Your task to perform on an android device: delete location history Image 0: 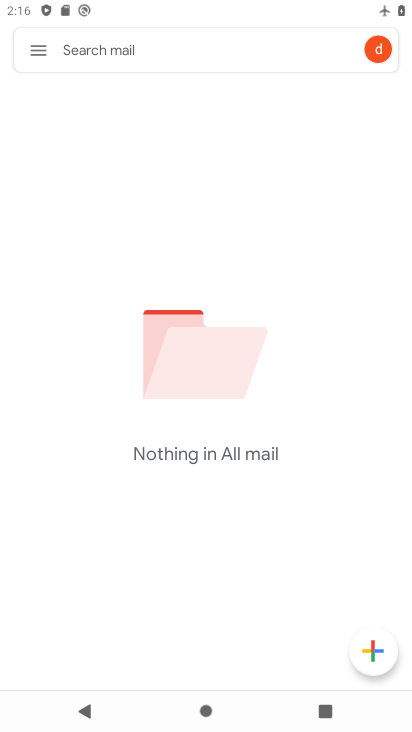
Step 0: press home button
Your task to perform on an android device: delete location history Image 1: 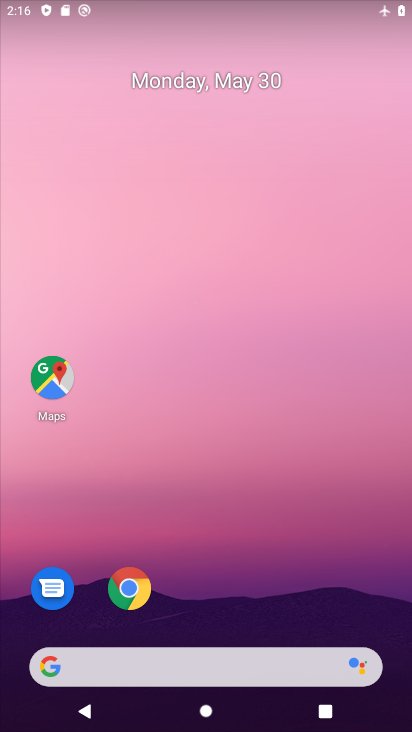
Step 1: click (58, 375)
Your task to perform on an android device: delete location history Image 2: 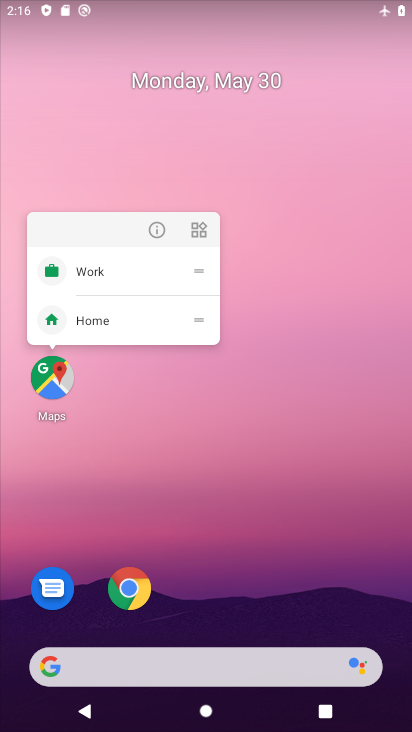
Step 2: click (58, 375)
Your task to perform on an android device: delete location history Image 3: 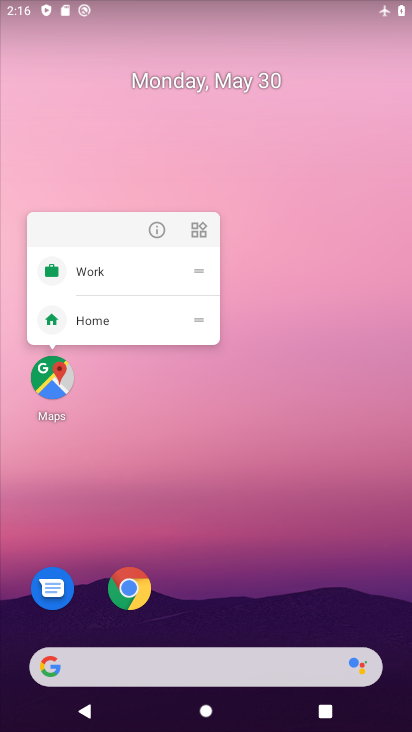
Step 3: click (58, 375)
Your task to perform on an android device: delete location history Image 4: 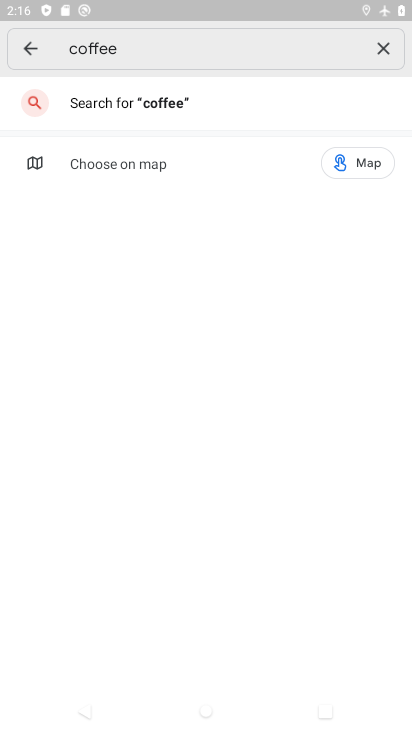
Step 4: click (26, 47)
Your task to perform on an android device: delete location history Image 5: 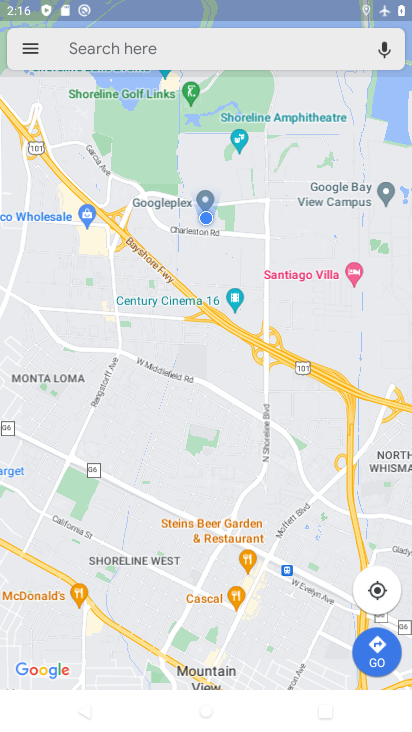
Step 5: click (30, 49)
Your task to perform on an android device: delete location history Image 6: 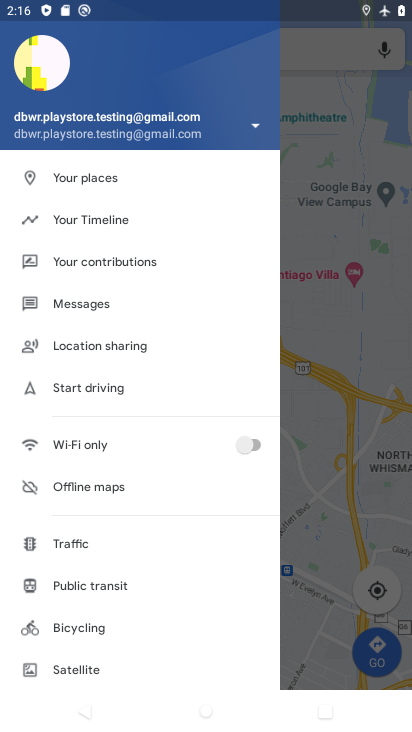
Step 6: click (109, 222)
Your task to perform on an android device: delete location history Image 7: 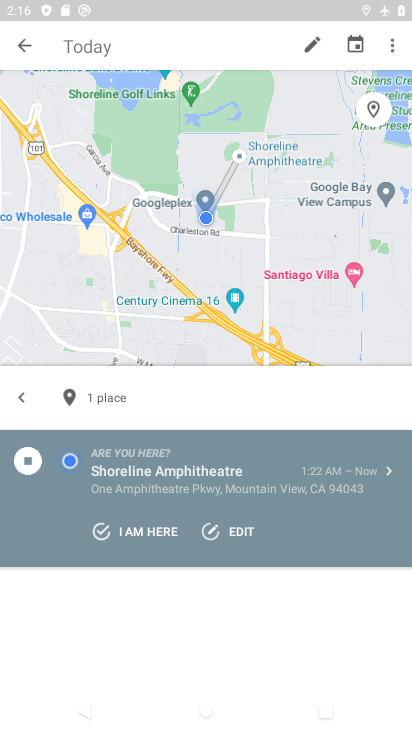
Step 7: click (383, 47)
Your task to perform on an android device: delete location history Image 8: 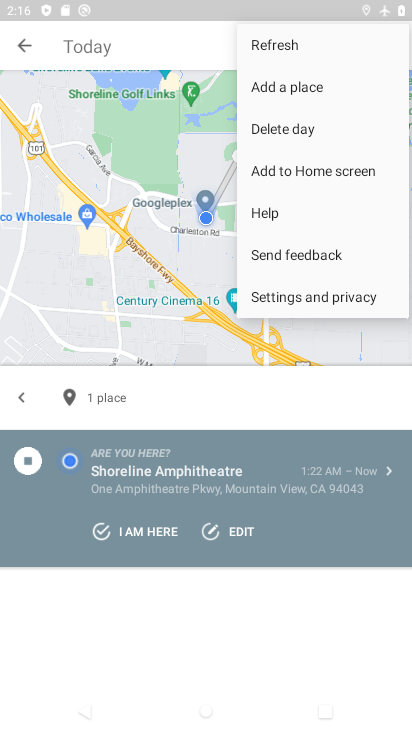
Step 8: click (295, 296)
Your task to perform on an android device: delete location history Image 9: 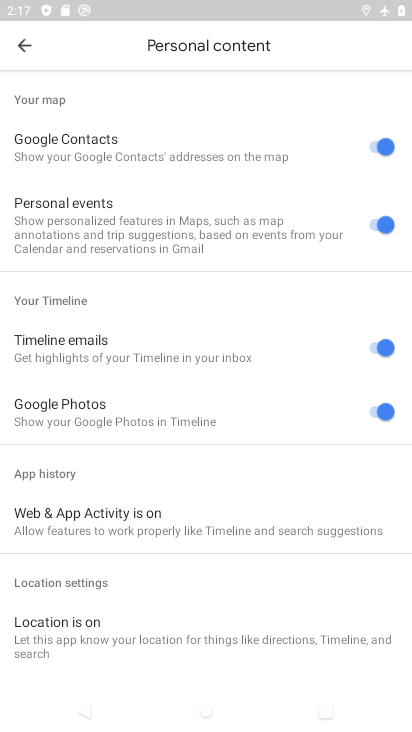
Step 9: drag from (150, 528) to (208, 150)
Your task to perform on an android device: delete location history Image 10: 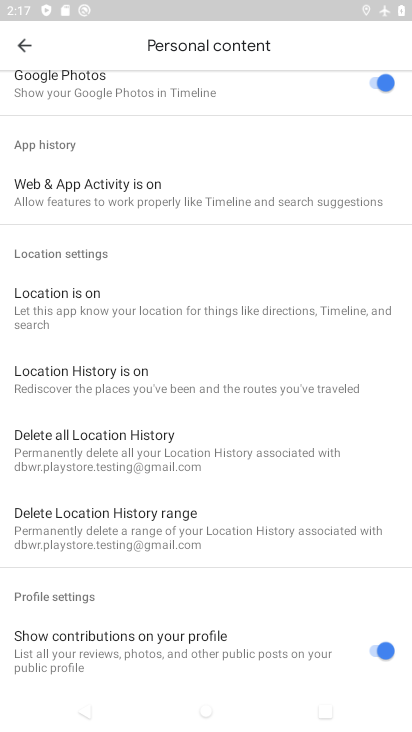
Step 10: click (126, 450)
Your task to perform on an android device: delete location history Image 11: 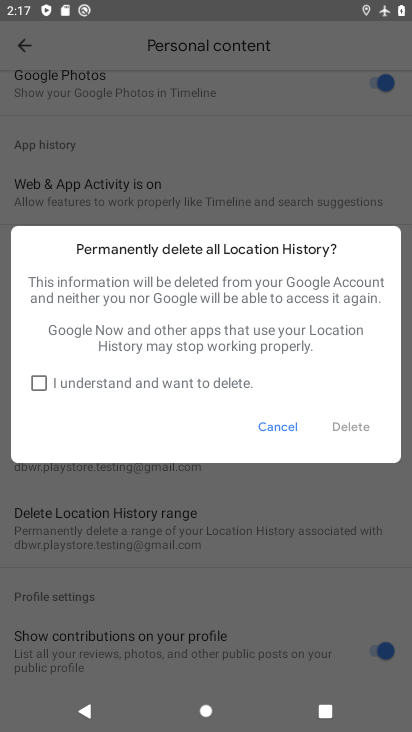
Step 11: click (46, 385)
Your task to perform on an android device: delete location history Image 12: 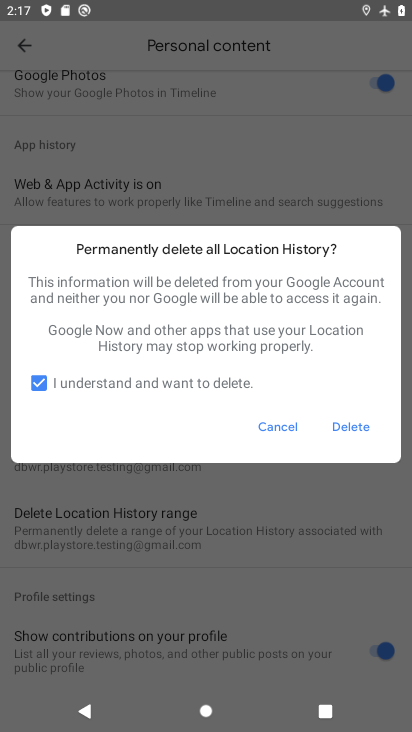
Step 12: click (344, 427)
Your task to perform on an android device: delete location history Image 13: 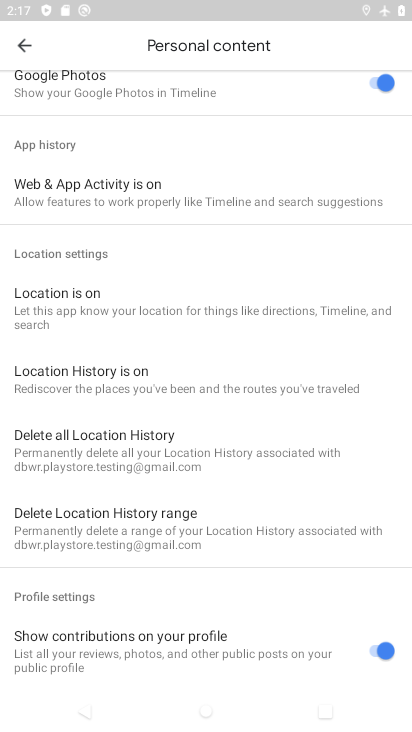
Step 13: task complete